Your task to perform on an android device: Open Chrome and go to settings Image 0: 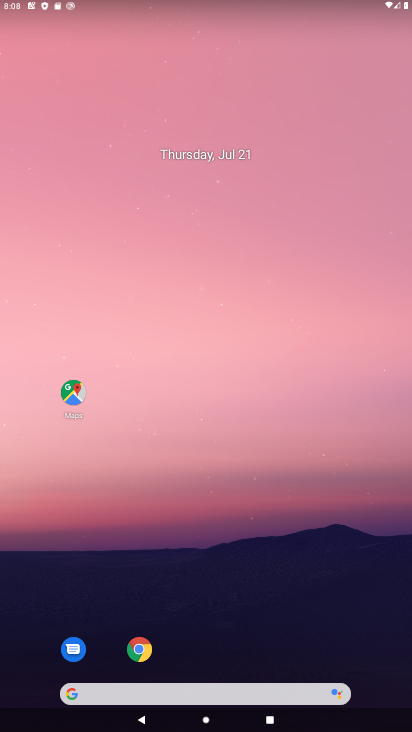
Step 0: click (144, 649)
Your task to perform on an android device: Open Chrome and go to settings Image 1: 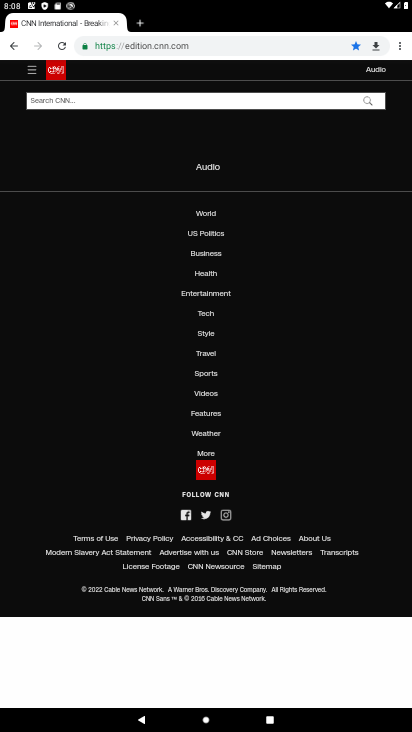
Step 1: click (397, 40)
Your task to perform on an android device: Open Chrome and go to settings Image 2: 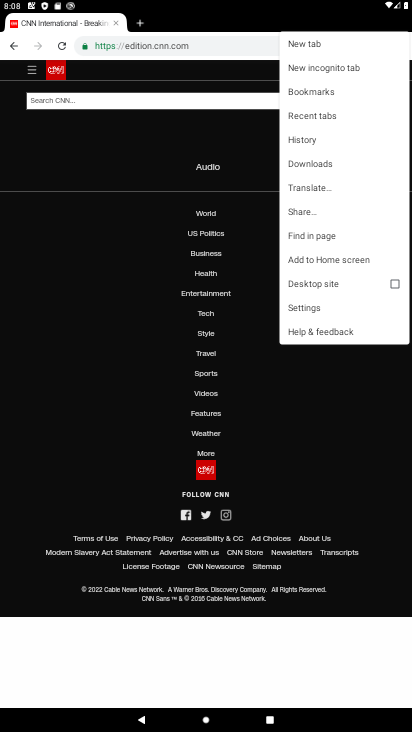
Step 2: click (299, 303)
Your task to perform on an android device: Open Chrome and go to settings Image 3: 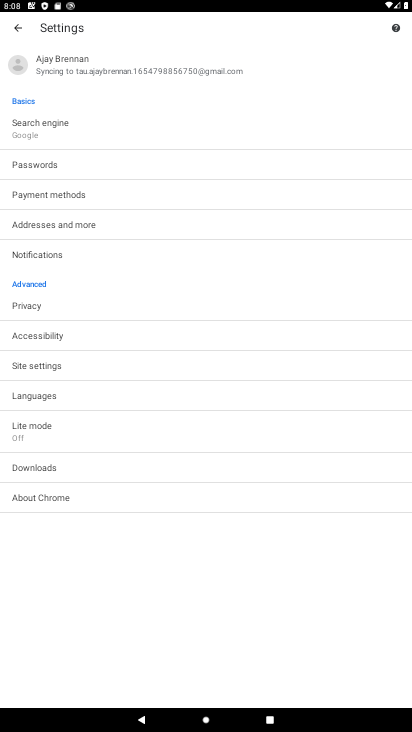
Step 3: task complete